Your task to perform on an android device: Open notification settings Image 0: 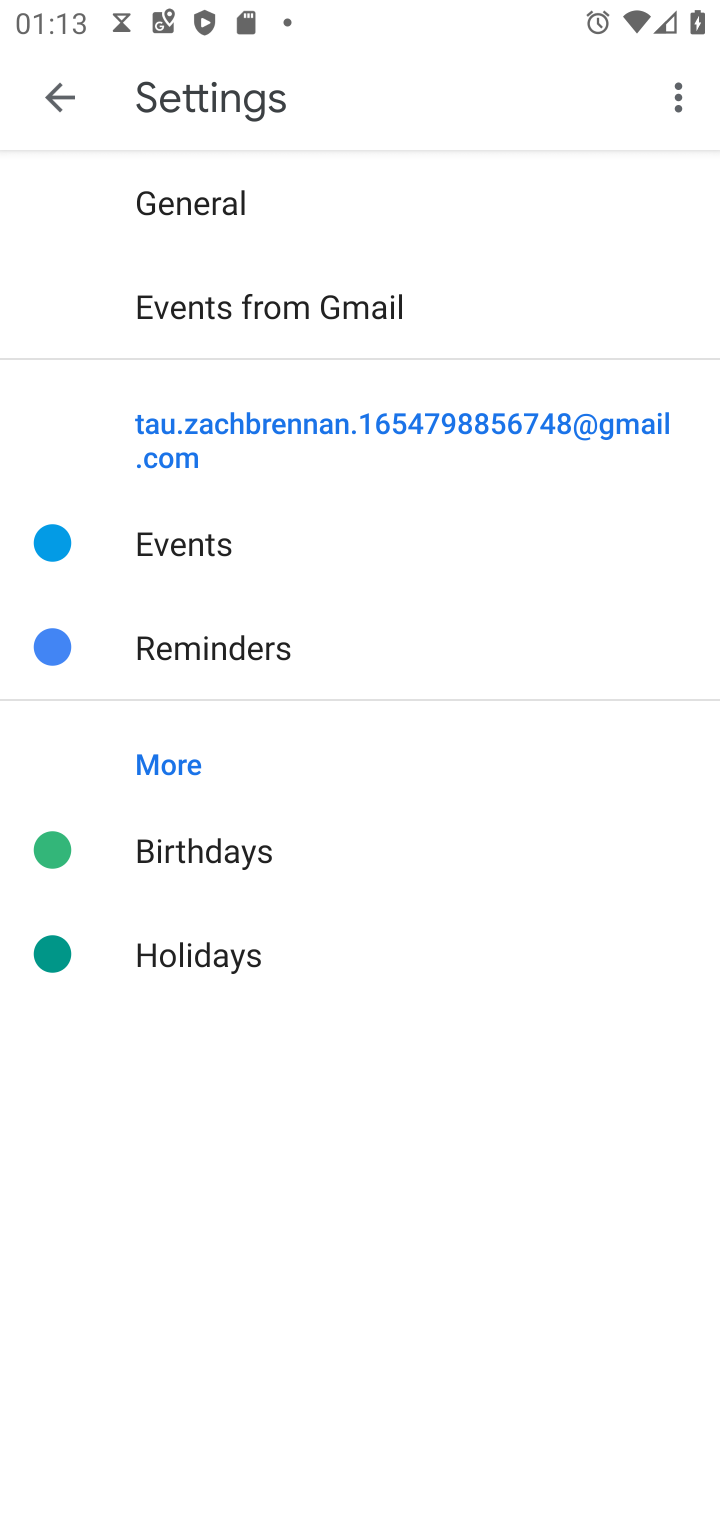
Step 0: press home button
Your task to perform on an android device: Open notification settings Image 1: 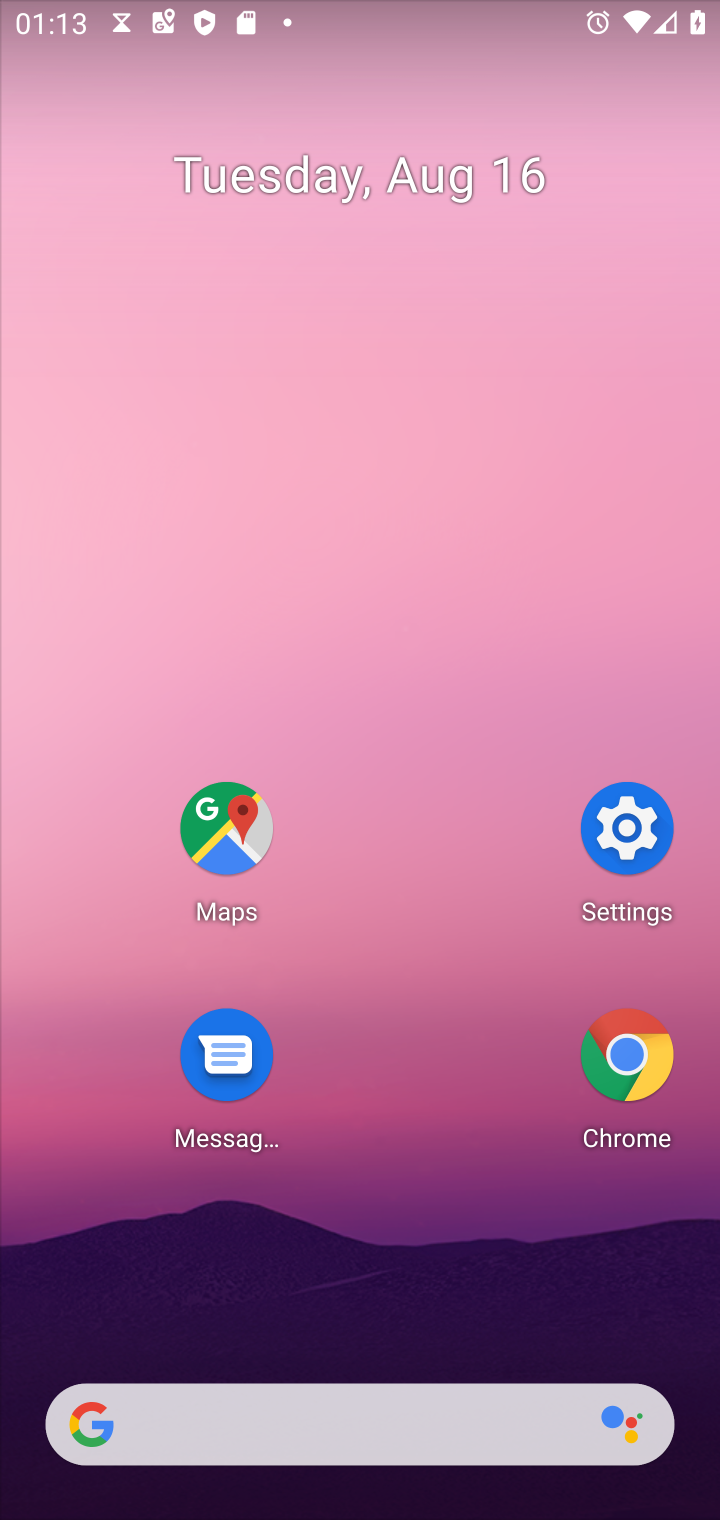
Step 1: click (627, 836)
Your task to perform on an android device: Open notification settings Image 2: 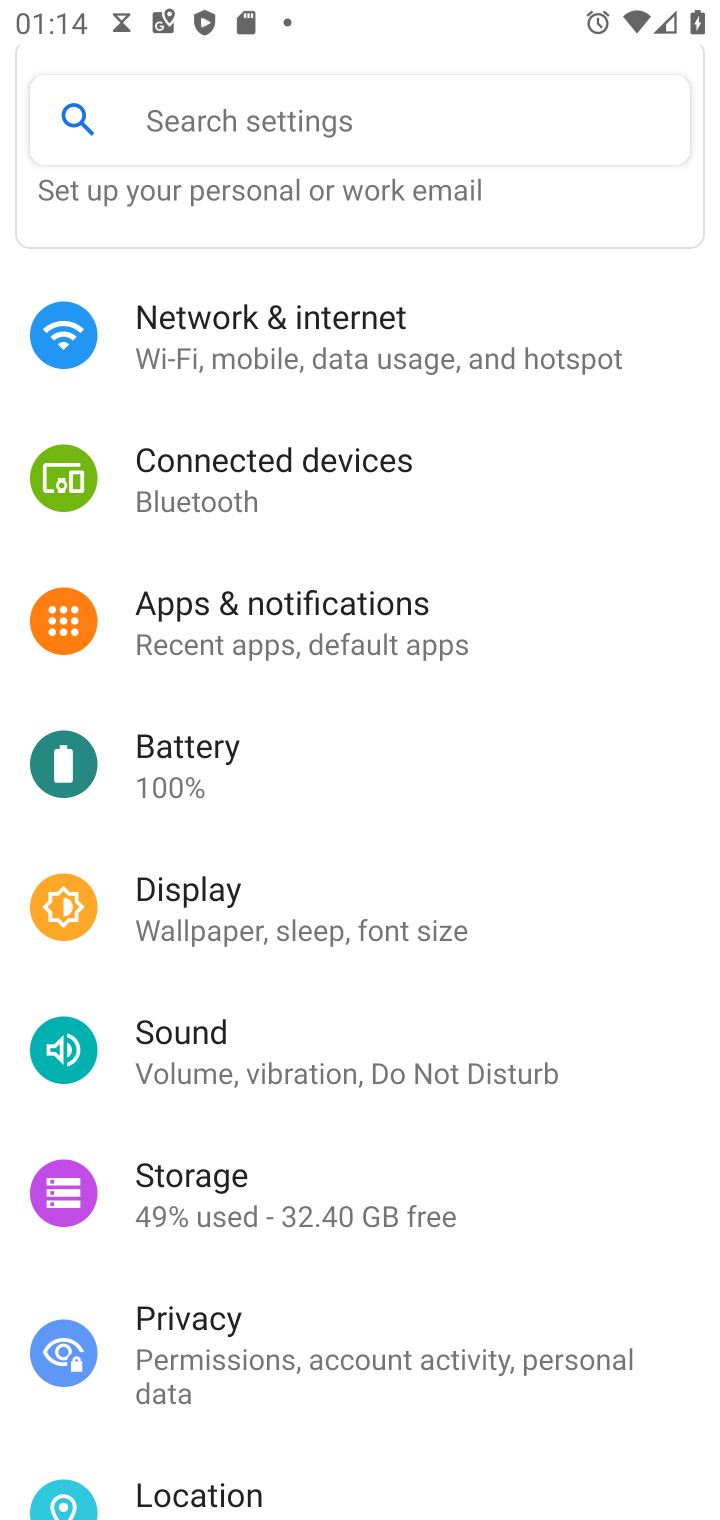
Step 2: click (305, 614)
Your task to perform on an android device: Open notification settings Image 3: 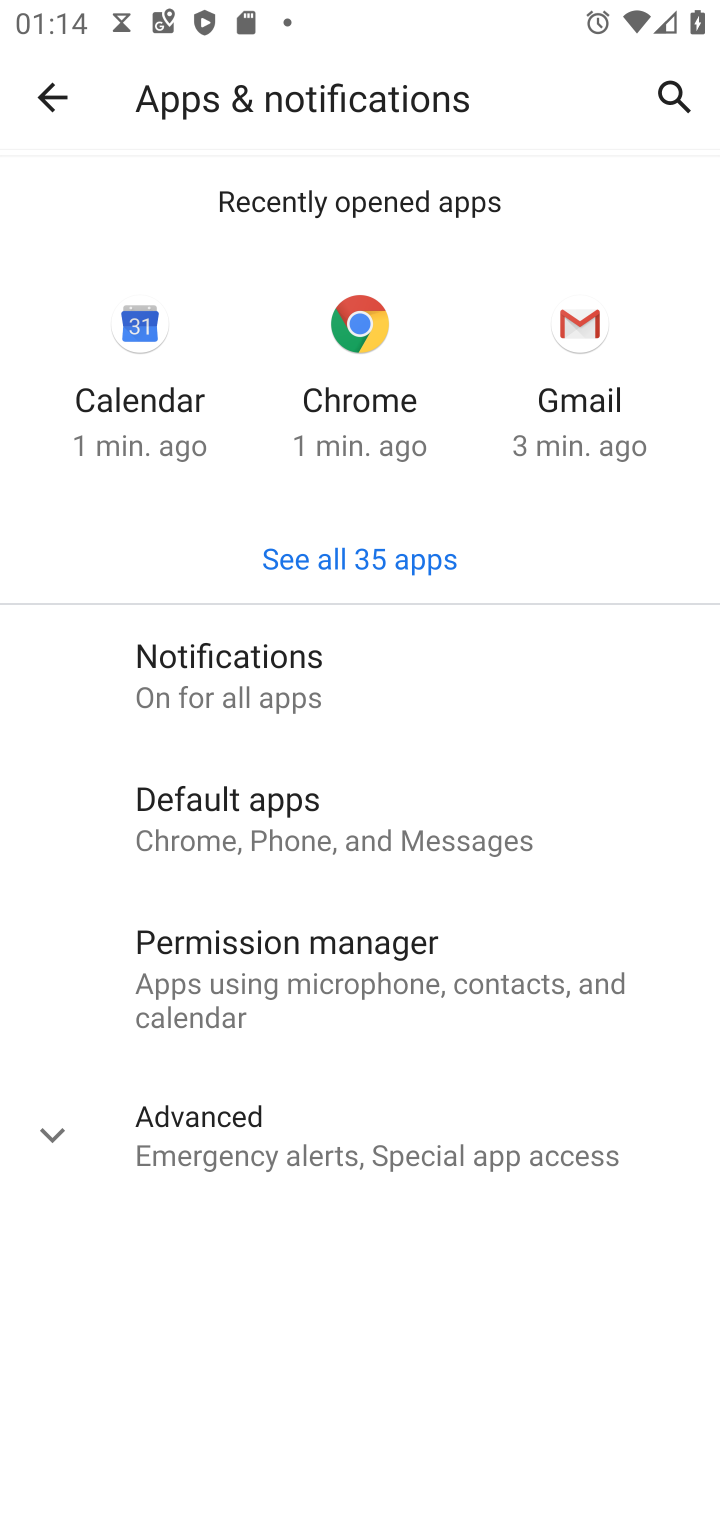
Step 3: click (238, 692)
Your task to perform on an android device: Open notification settings Image 4: 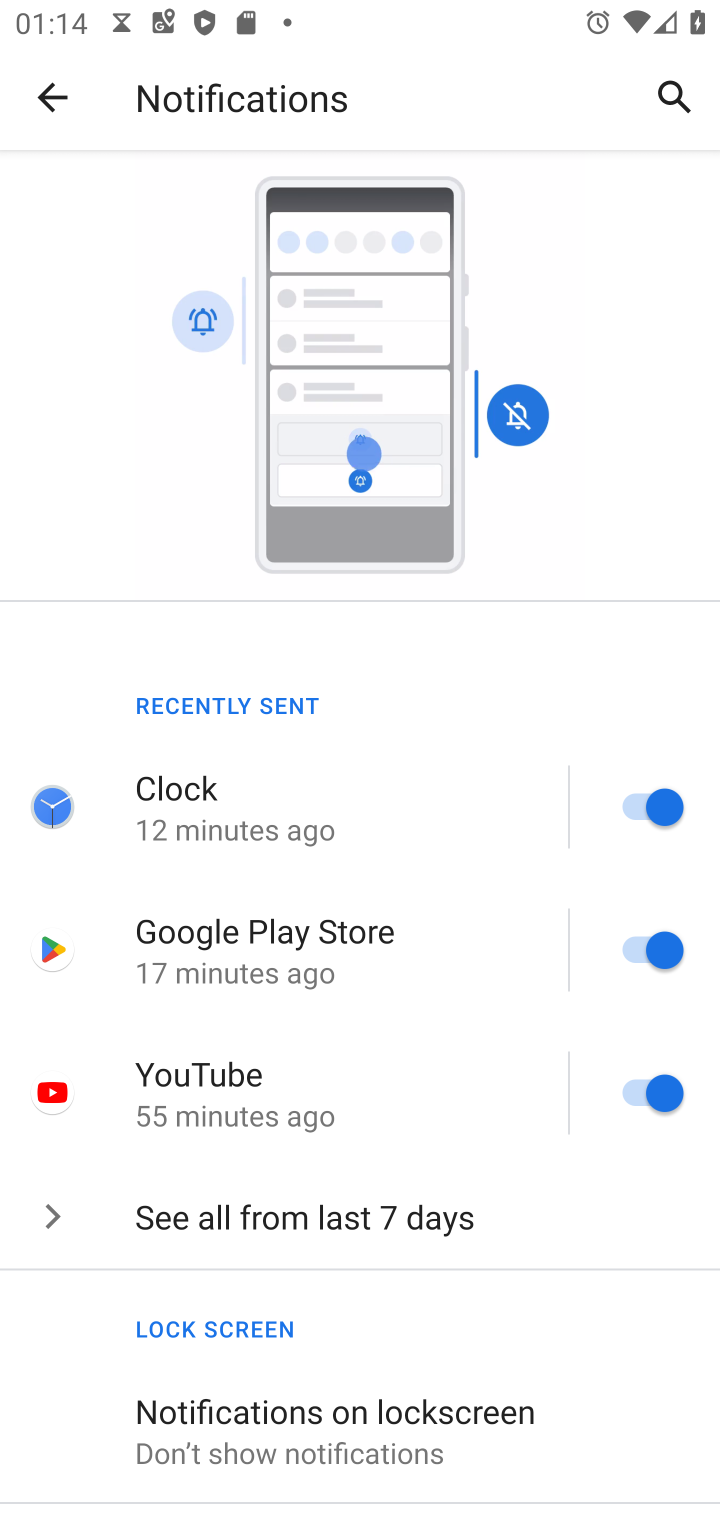
Step 4: task complete